Your task to perform on an android device: turn pop-ups off in chrome Image 0: 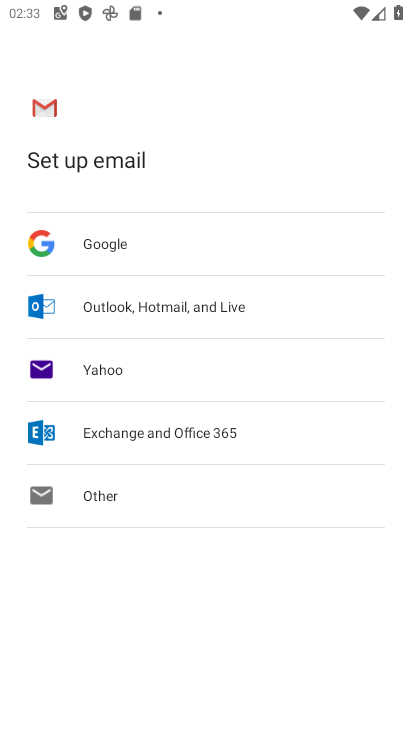
Step 0: press home button
Your task to perform on an android device: turn pop-ups off in chrome Image 1: 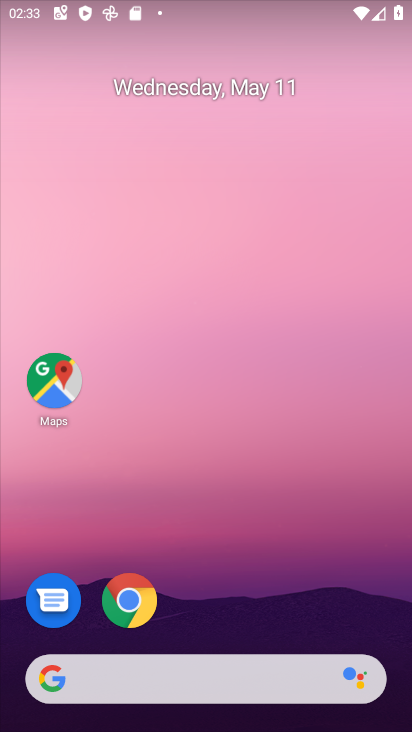
Step 1: drag from (201, 717) to (133, 729)
Your task to perform on an android device: turn pop-ups off in chrome Image 2: 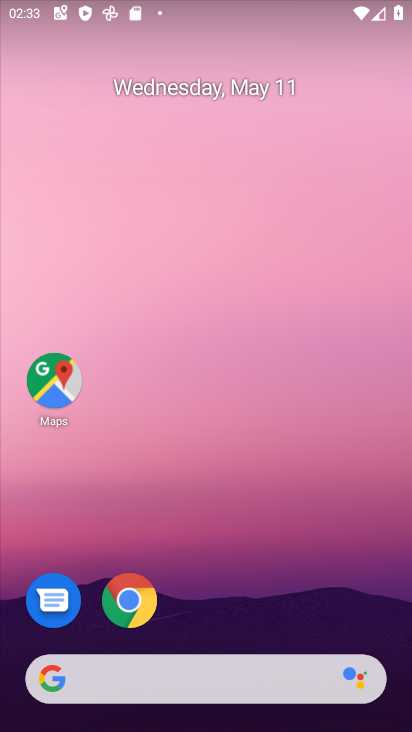
Step 2: click (133, 598)
Your task to perform on an android device: turn pop-ups off in chrome Image 3: 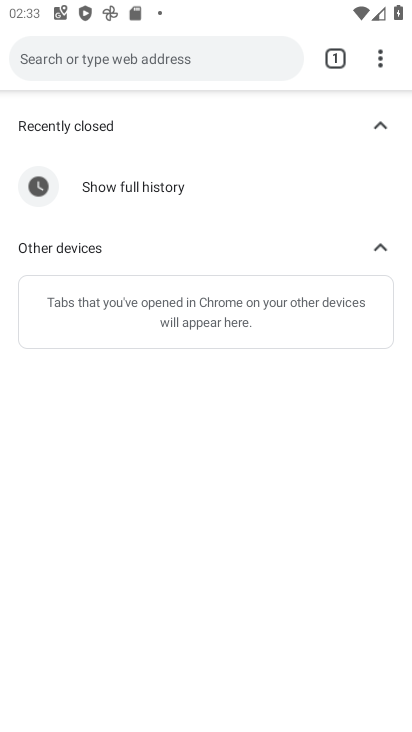
Step 3: click (381, 54)
Your task to perform on an android device: turn pop-ups off in chrome Image 4: 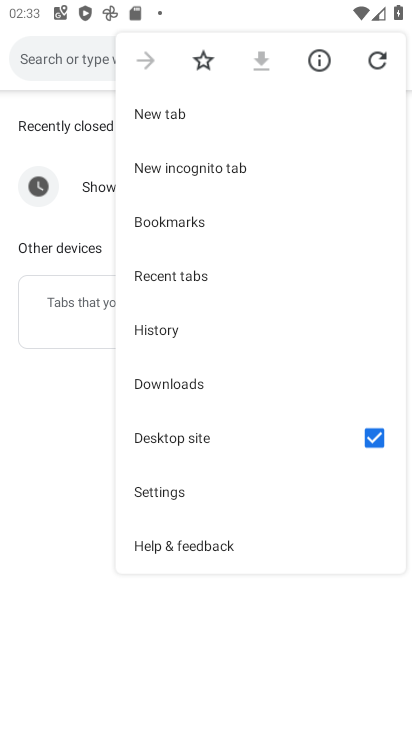
Step 4: click (165, 496)
Your task to perform on an android device: turn pop-ups off in chrome Image 5: 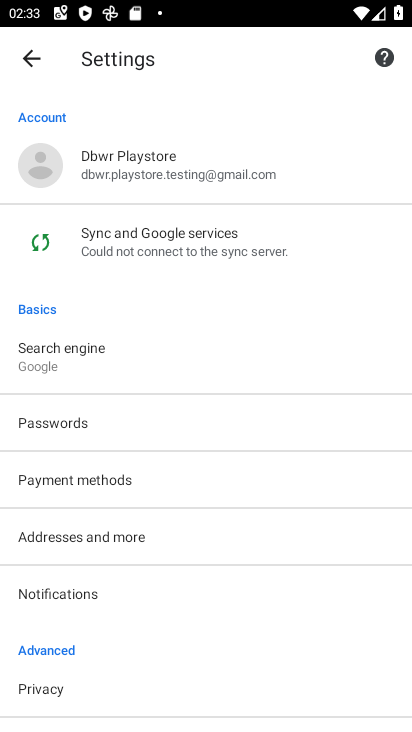
Step 5: drag from (232, 640) to (282, 178)
Your task to perform on an android device: turn pop-ups off in chrome Image 6: 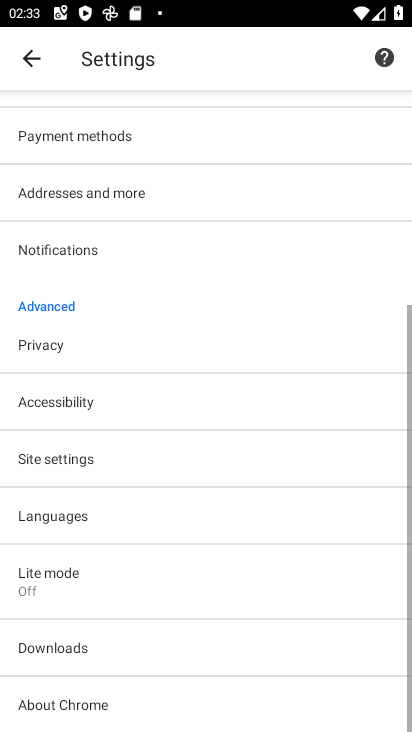
Step 6: click (75, 455)
Your task to perform on an android device: turn pop-ups off in chrome Image 7: 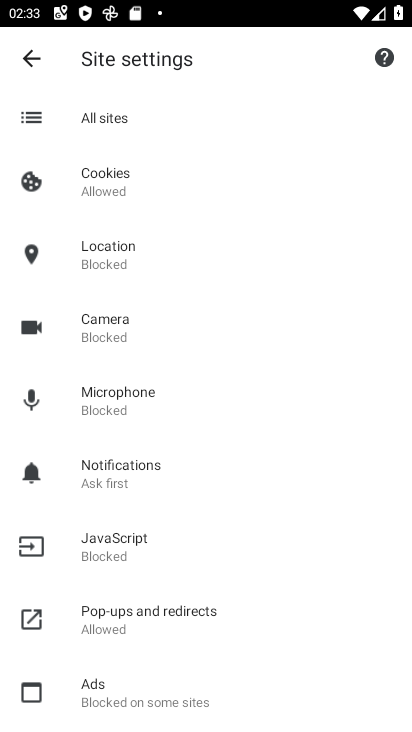
Step 7: click (177, 619)
Your task to perform on an android device: turn pop-ups off in chrome Image 8: 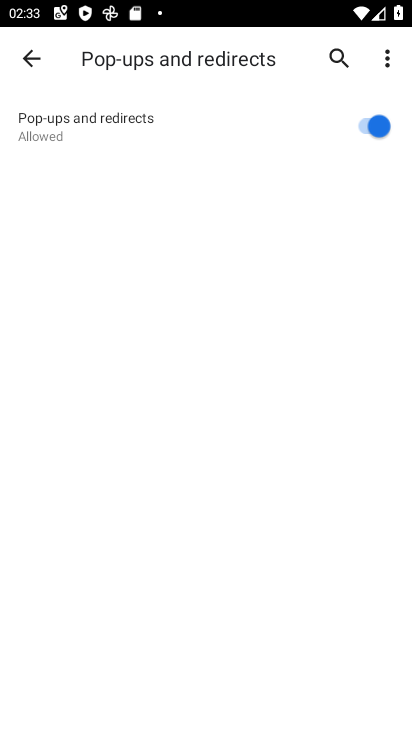
Step 8: click (374, 115)
Your task to perform on an android device: turn pop-ups off in chrome Image 9: 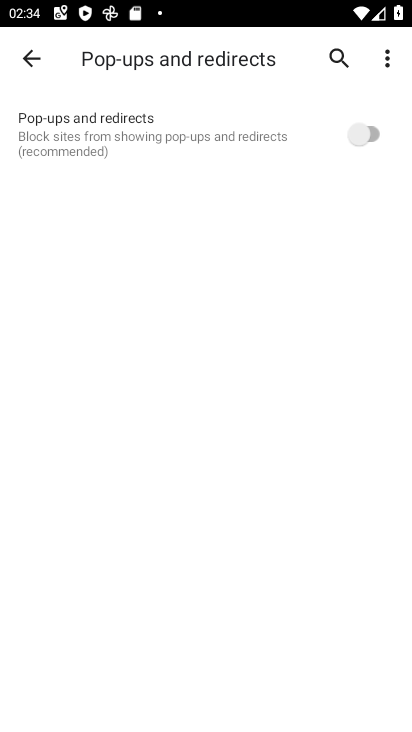
Step 9: task complete